Your task to perform on an android device: turn on data saver in the chrome app Image 0: 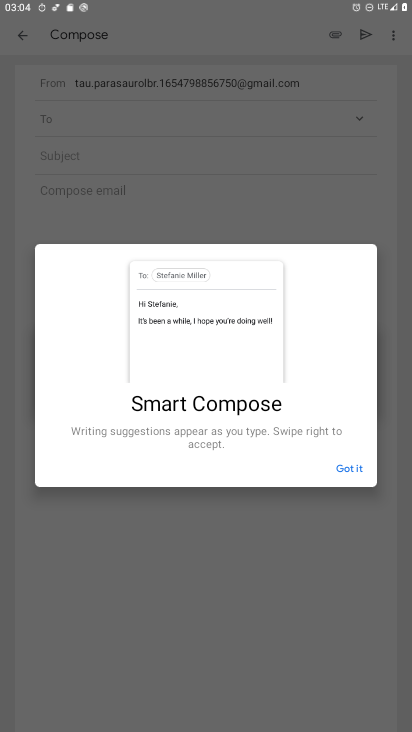
Step 0: press home button
Your task to perform on an android device: turn on data saver in the chrome app Image 1: 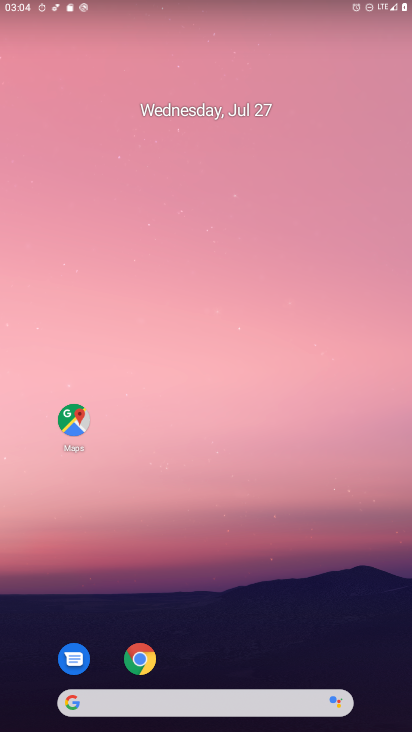
Step 1: drag from (326, 627) to (245, 100)
Your task to perform on an android device: turn on data saver in the chrome app Image 2: 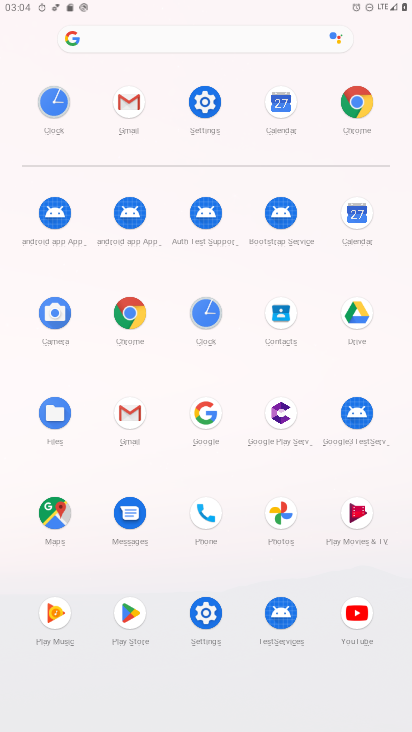
Step 2: click (133, 311)
Your task to perform on an android device: turn on data saver in the chrome app Image 3: 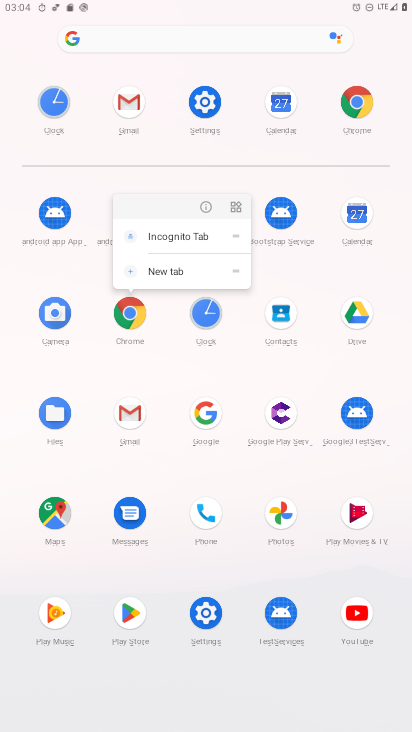
Step 3: click (132, 313)
Your task to perform on an android device: turn on data saver in the chrome app Image 4: 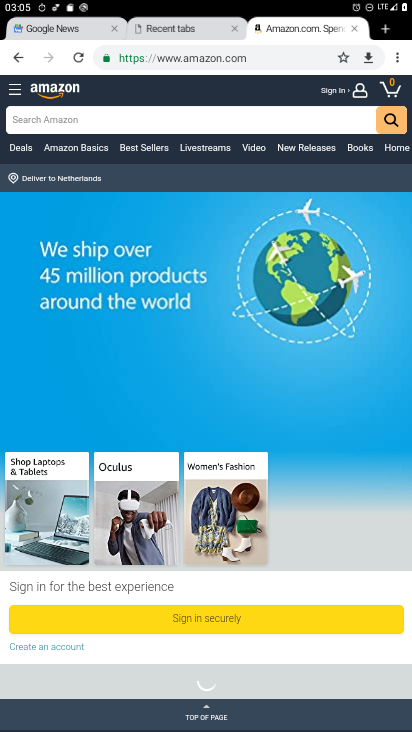
Step 4: drag from (393, 57) to (291, 381)
Your task to perform on an android device: turn on data saver in the chrome app Image 5: 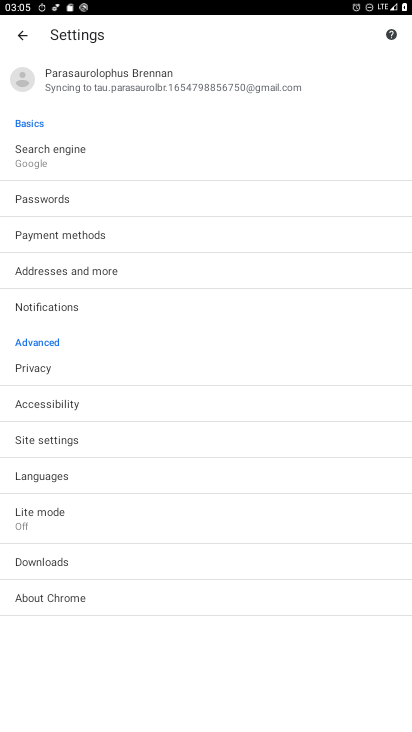
Step 5: click (62, 507)
Your task to perform on an android device: turn on data saver in the chrome app Image 6: 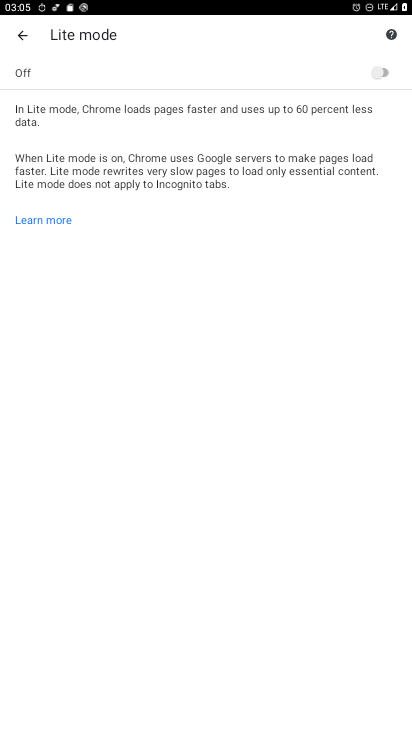
Step 6: click (371, 65)
Your task to perform on an android device: turn on data saver in the chrome app Image 7: 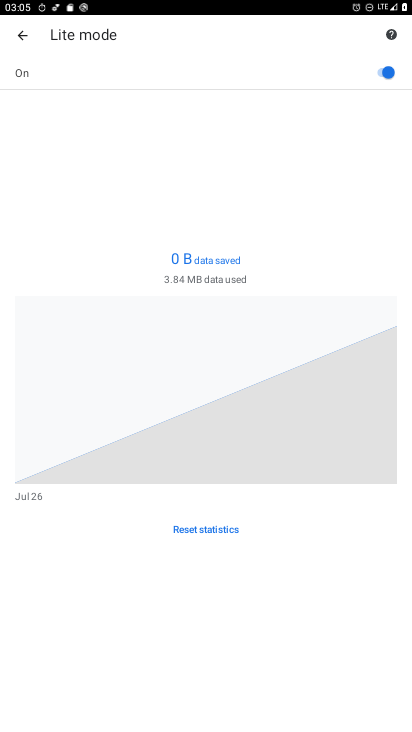
Step 7: task complete